Your task to perform on an android device: Open the calendar app, open the side menu, and click the "Day" option Image 0: 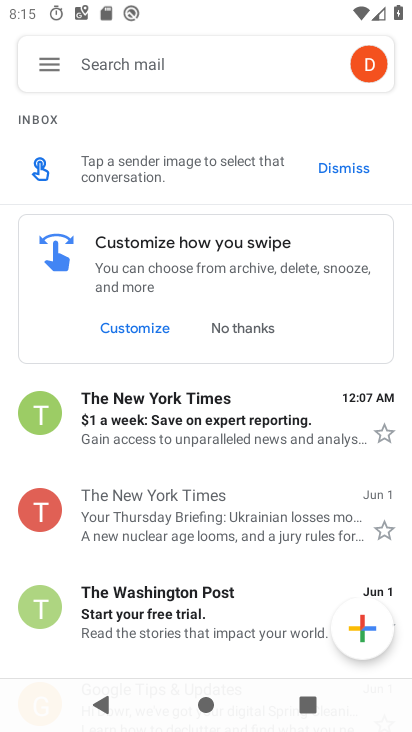
Step 0: press home button
Your task to perform on an android device: Open the calendar app, open the side menu, and click the "Day" option Image 1: 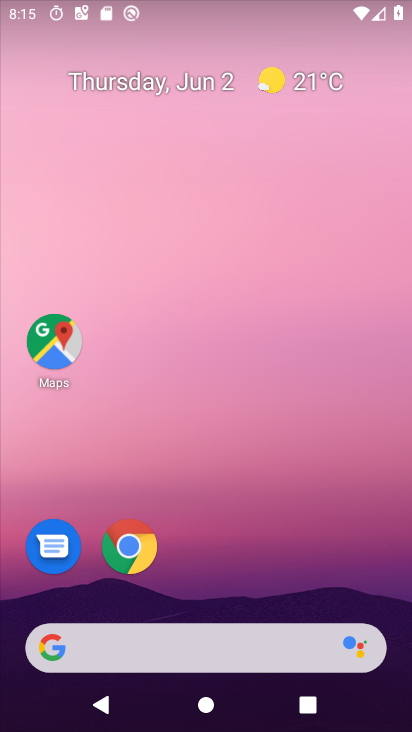
Step 1: drag from (302, 546) to (292, 174)
Your task to perform on an android device: Open the calendar app, open the side menu, and click the "Day" option Image 2: 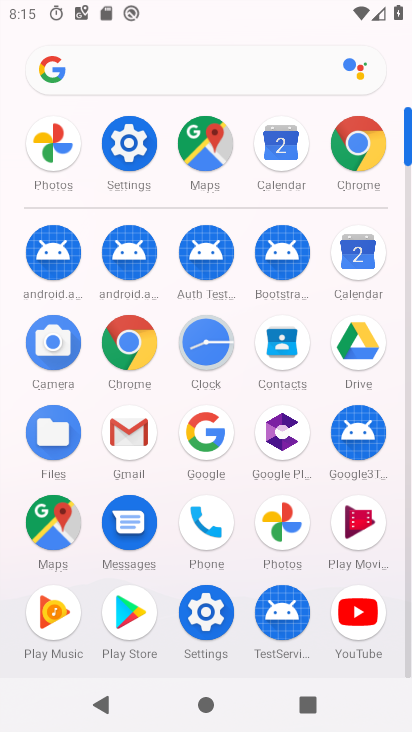
Step 2: click (370, 260)
Your task to perform on an android device: Open the calendar app, open the side menu, and click the "Day" option Image 3: 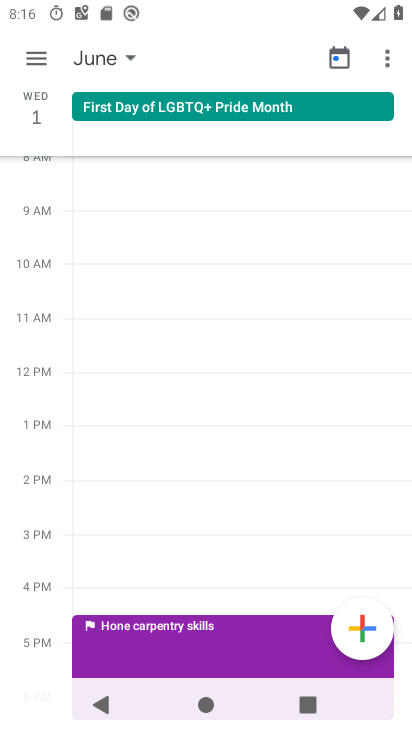
Step 3: click (39, 60)
Your task to perform on an android device: Open the calendar app, open the side menu, and click the "Day" option Image 4: 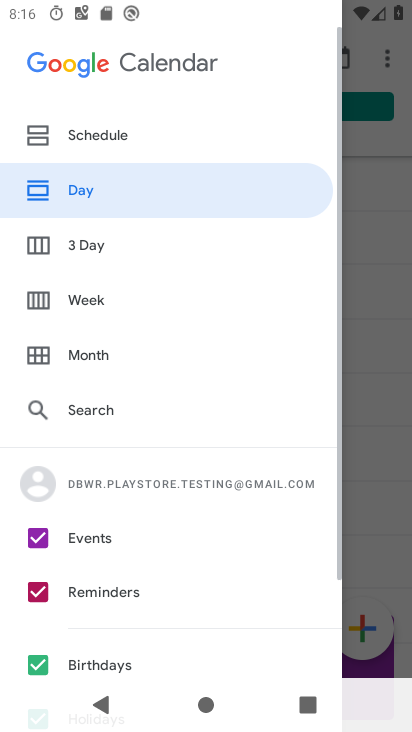
Step 4: click (362, 355)
Your task to perform on an android device: Open the calendar app, open the side menu, and click the "Day" option Image 5: 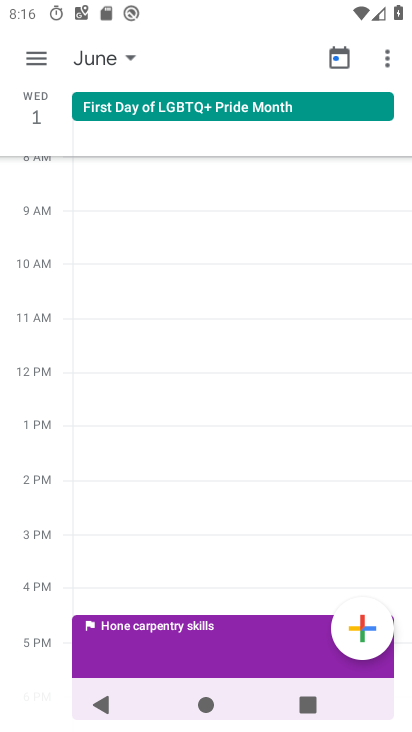
Step 5: task complete